Your task to perform on an android device: turn on the 24-hour format for clock Image 0: 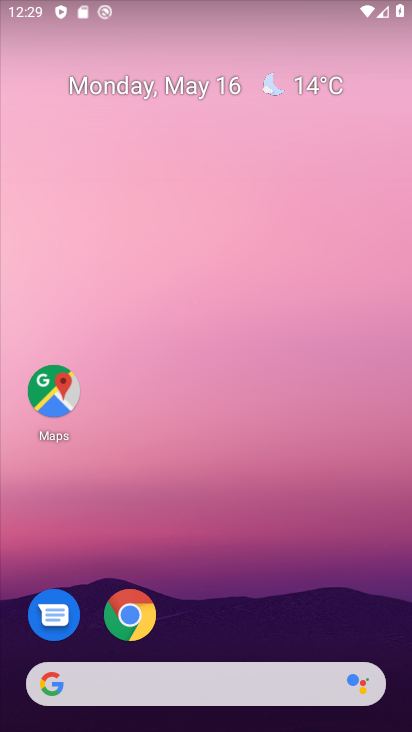
Step 0: drag from (335, 547) to (291, 154)
Your task to perform on an android device: turn on the 24-hour format for clock Image 1: 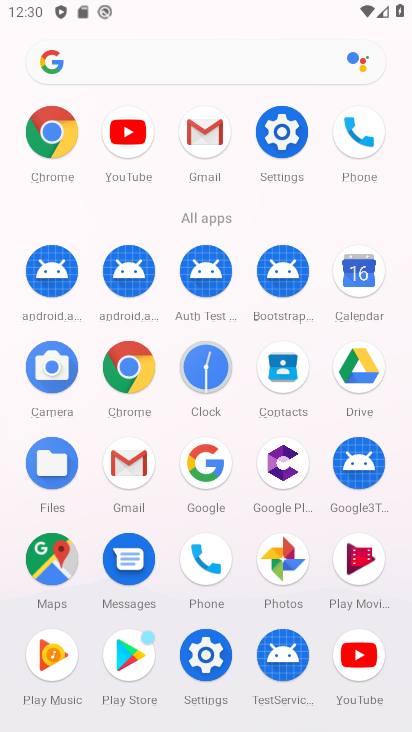
Step 1: drag from (279, 570) to (293, 235)
Your task to perform on an android device: turn on the 24-hour format for clock Image 2: 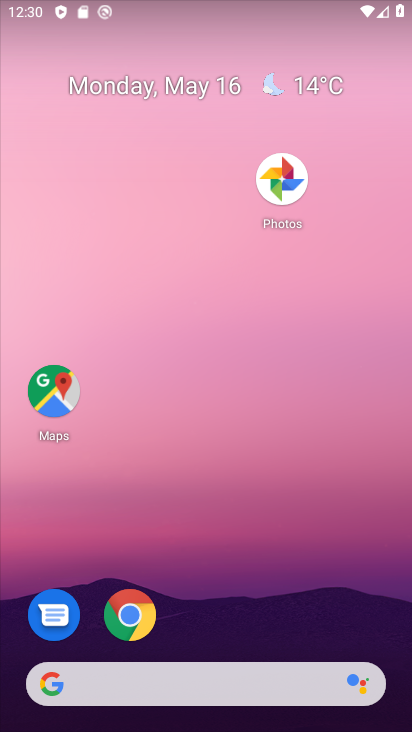
Step 2: drag from (374, 598) to (360, 132)
Your task to perform on an android device: turn on the 24-hour format for clock Image 3: 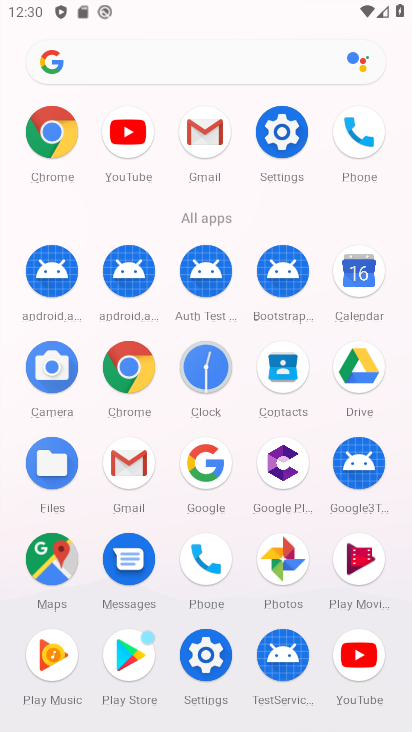
Step 3: click (212, 372)
Your task to perform on an android device: turn on the 24-hour format for clock Image 4: 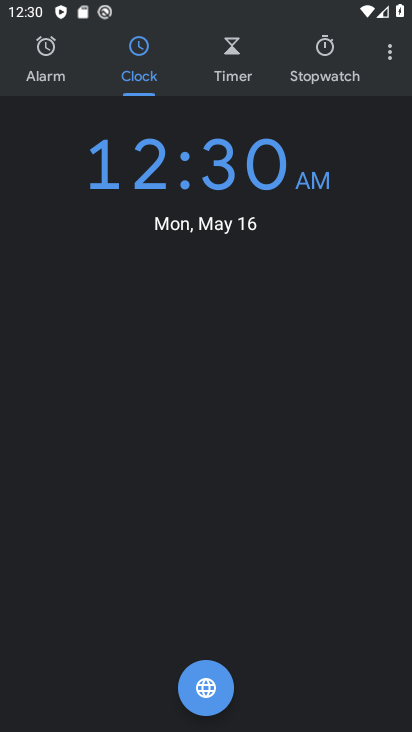
Step 4: drag from (393, 66) to (291, 103)
Your task to perform on an android device: turn on the 24-hour format for clock Image 5: 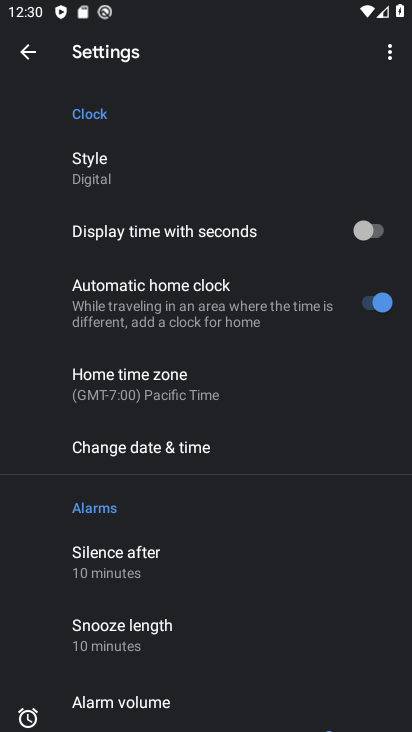
Step 5: click (243, 445)
Your task to perform on an android device: turn on the 24-hour format for clock Image 6: 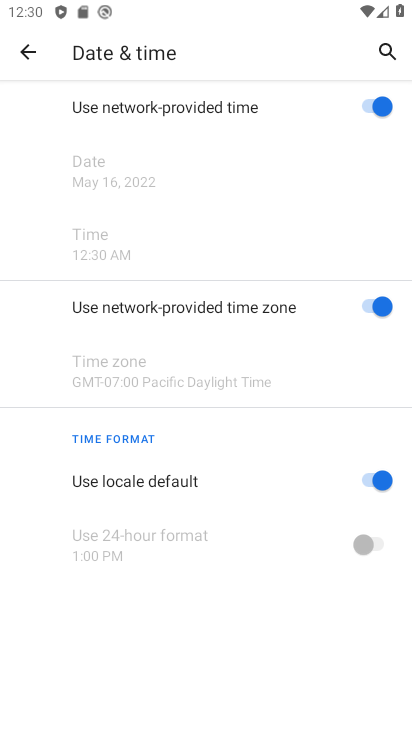
Step 6: click (370, 481)
Your task to perform on an android device: turn on the 24-hour format for clock Image 7: 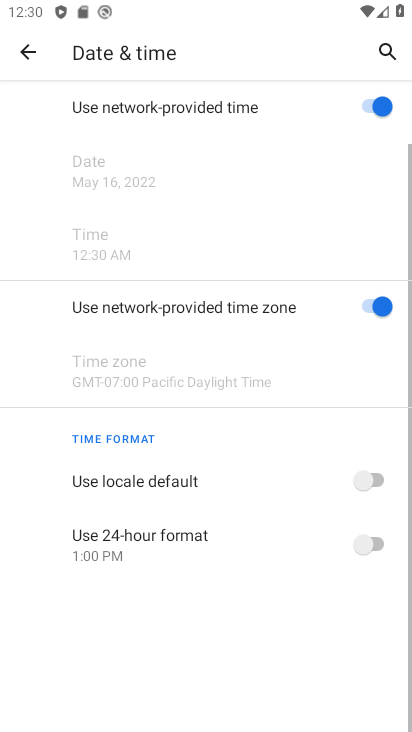
Step 7: click (380, 542)
Your task to perform on an android device: turn on the 24-hour format for clock Image 8: 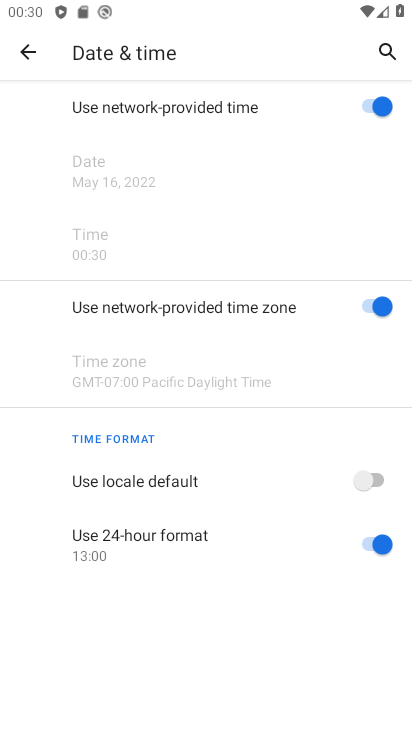
Step 8: task complete